Your task to perform on an android device: Search for sushi restaurants on Maps Image 0: 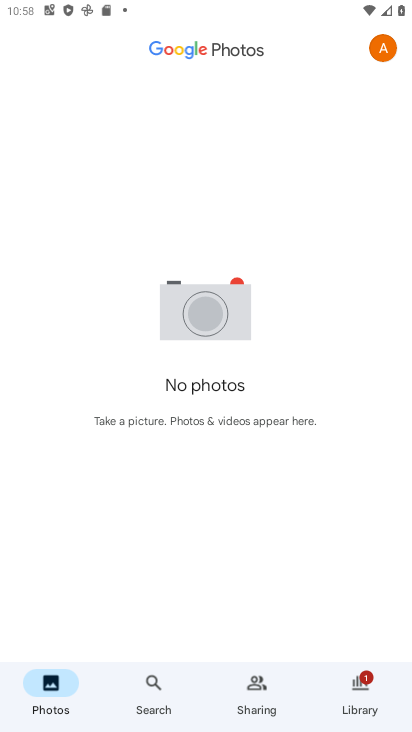
Step 0: press home button
Your task to perform on an android device: Search for sushi restaurants on Maps Image 1: 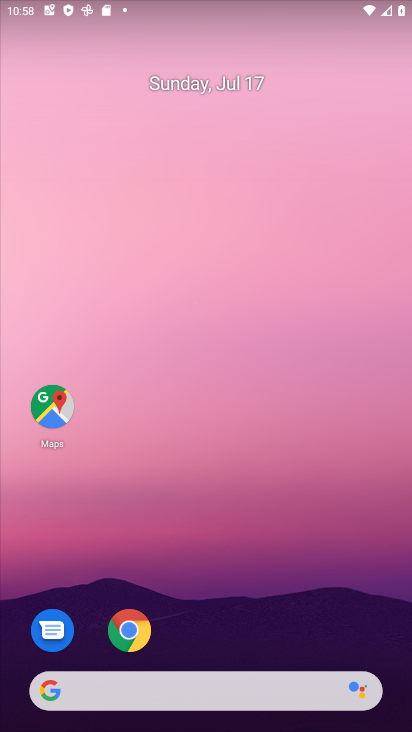
Step 1: click (39, 419)
Your task to perform on an android device: Search for sushi restaurants on Maps Image 2: 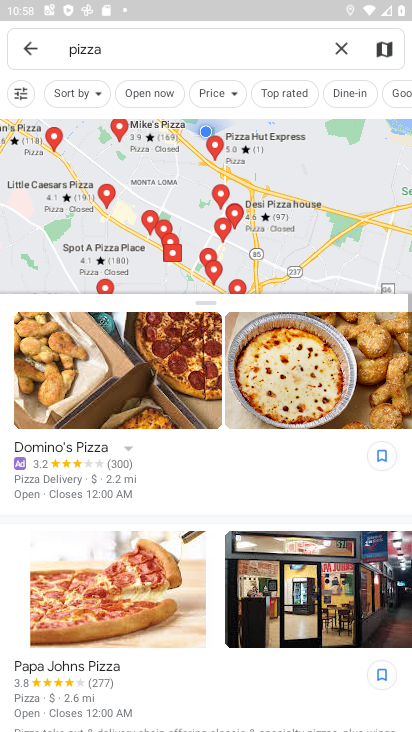
Step 2: click (331, 48)
Your task to perform on an android device: Search for sushi restaurants on Maps Image 3: 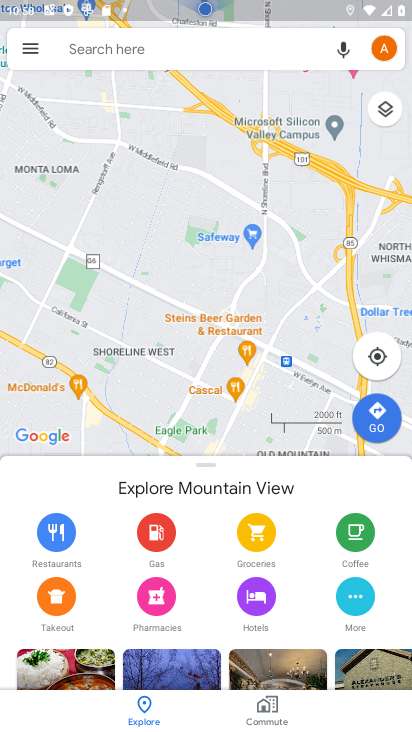
Step 3: click (232, 51)
Your task to perform on an android device: Search for sushi restaurants on Maps Image 4: 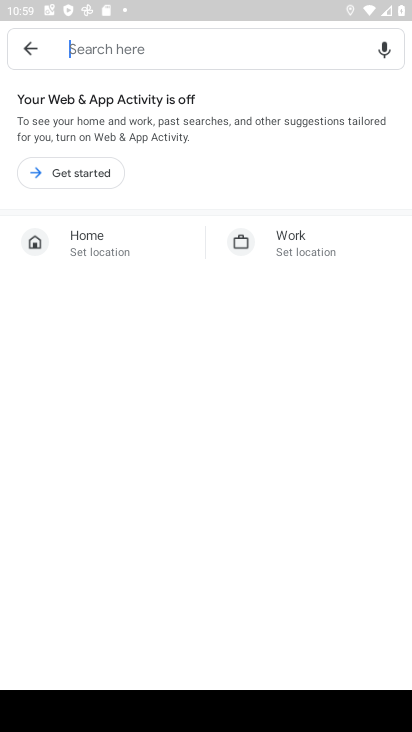
Step 4: type "sushi"
Your task to perform on an android device: Search for sushi restaurants on Maps Image 5: 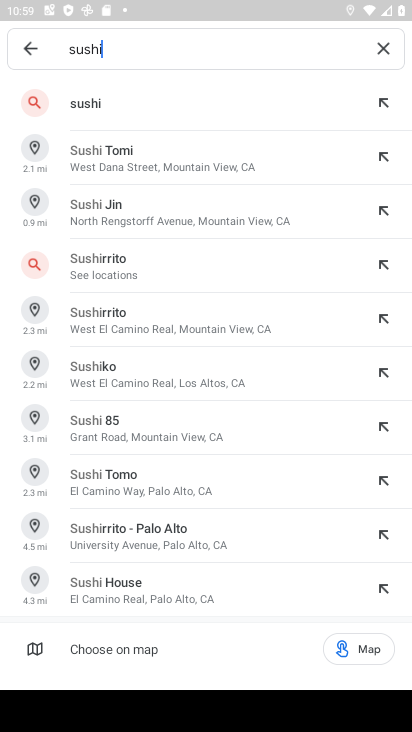
Step 5: click (162, 100)
Your task to perform on an android device: Search for sushi restaurants on Maps Image 6: 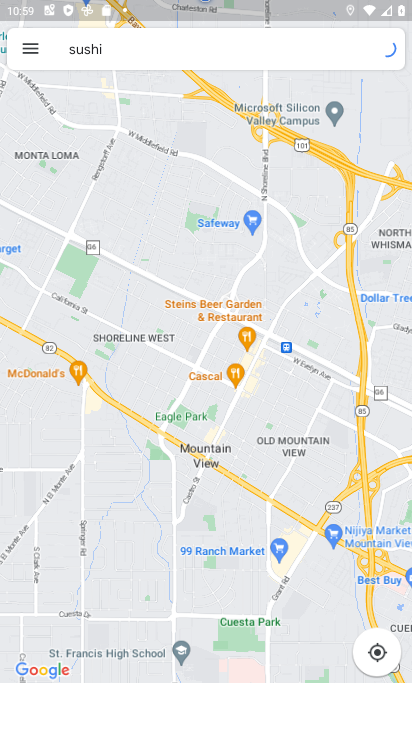
Step 6: task complete